Your task to perform on an android device: Open Google Chrome Image 0: 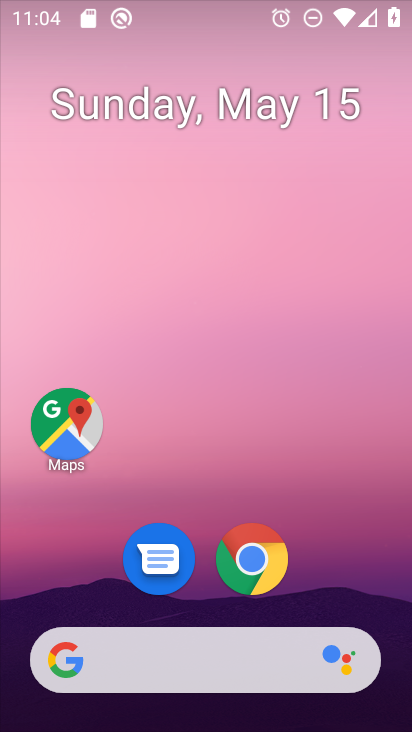
Step 0: drag from (347, 558) to (356, 104)
Your task to perform on an android device: Open Google Chrome Image 1: 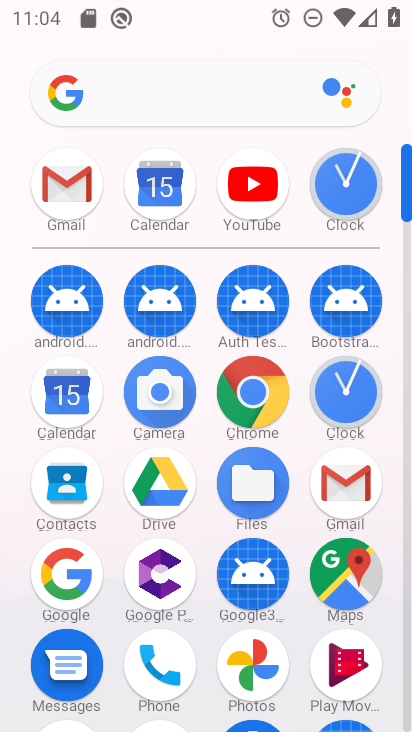
Step 1: click (245, 387)
Your task to perform on an android device: Open Google Chrome Image 2: 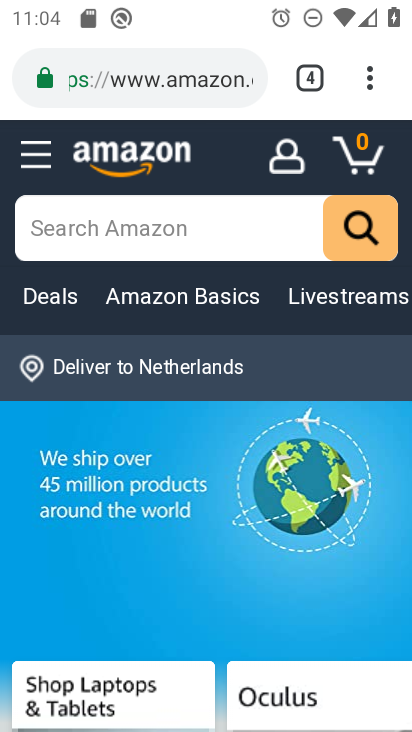
Step 2: task complete